Your task to perform on an android device: Go to Google maps Image 0: 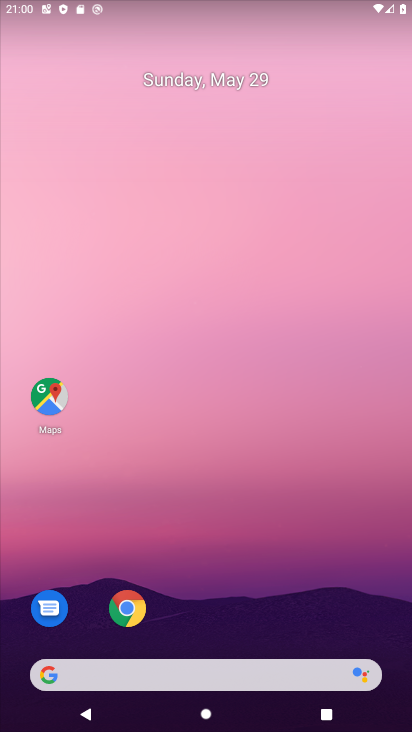
Step 0: drag from (382, 617) to (366, 209)
Your task to perform on an android device: Go to Google maps Image 1: 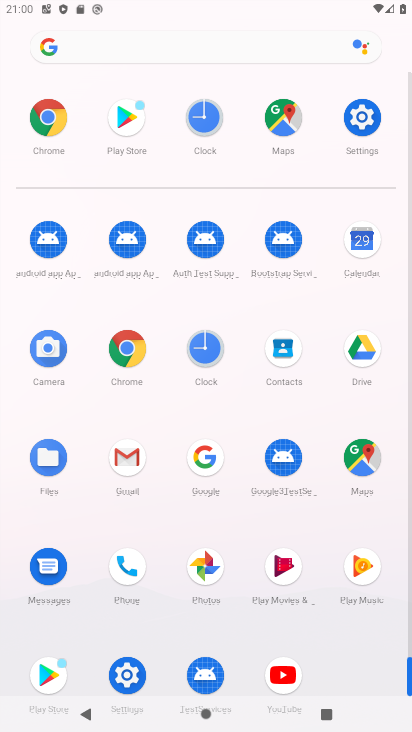
Step 1: click (357, 459)
Your task to perform on an android device: Go to Google maps Image 2: 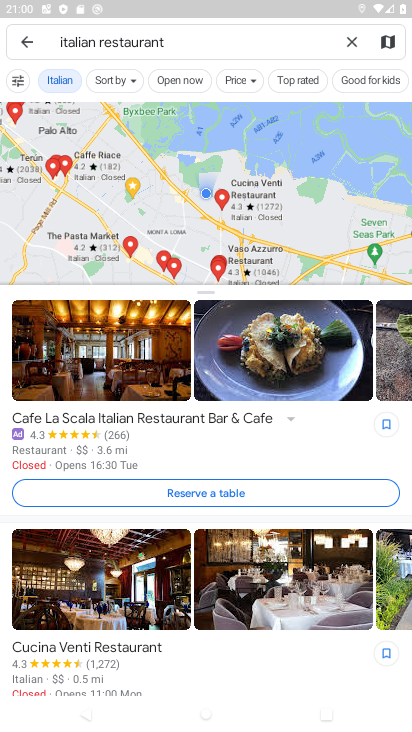
Step 2: task complete